Your task to perform on an android device: Open Youtube and go to the subscriptions tab Image 0: 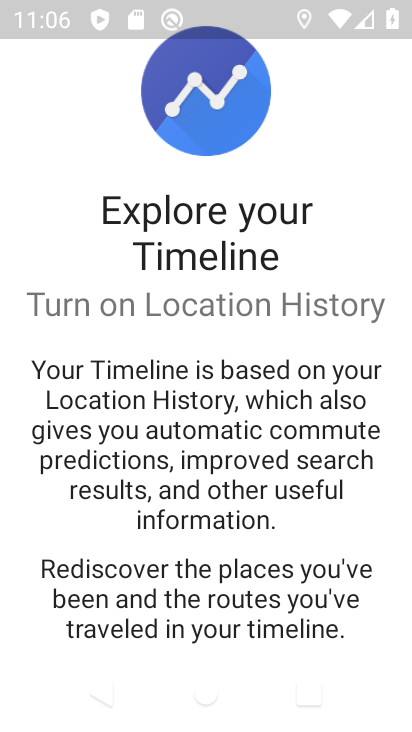
Step 0: press home button
Your task to perform on an android device: Open Youtube and go to the subscriptions tab Image 1: 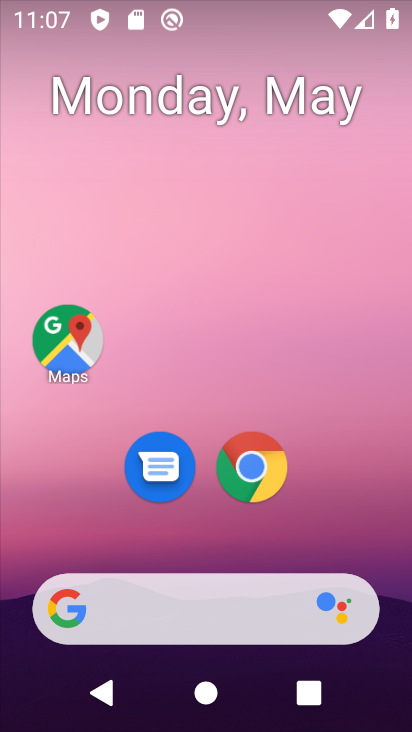
Step 1: drag from (317, 538) to (338, 163)
Your task to perform on an android device: Open Youtube and go to the subscriptions tab Image 2: 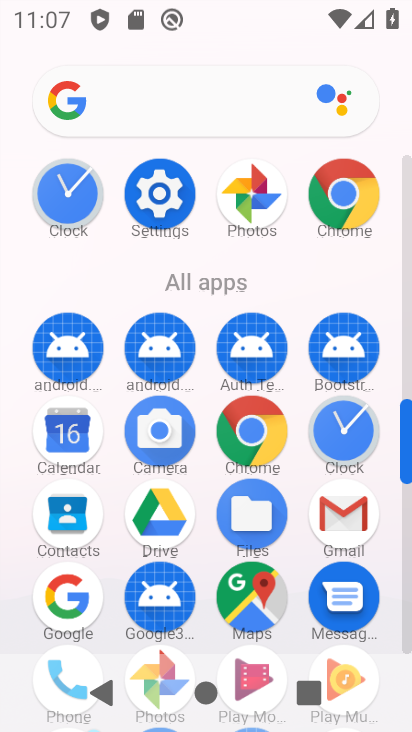
Step 2: click (408, 542)
Your task to perform on an android device: Open Youtube and go to the subscriptions tab Image 3: 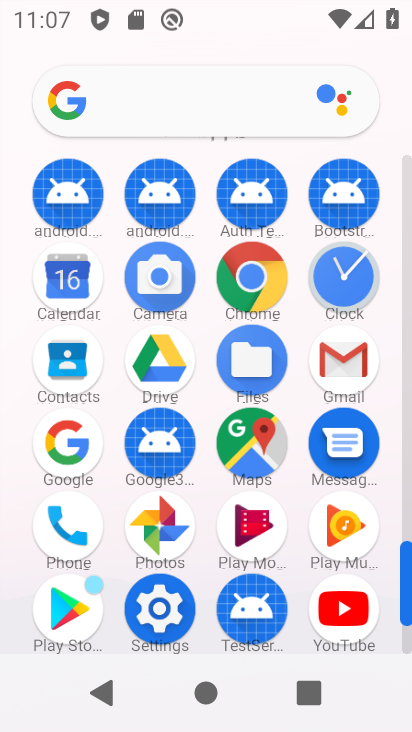
Step 3: click (339, 601)
Your task to perform on an android device: Open Youtube and go to the subscriptions tab Image 4: 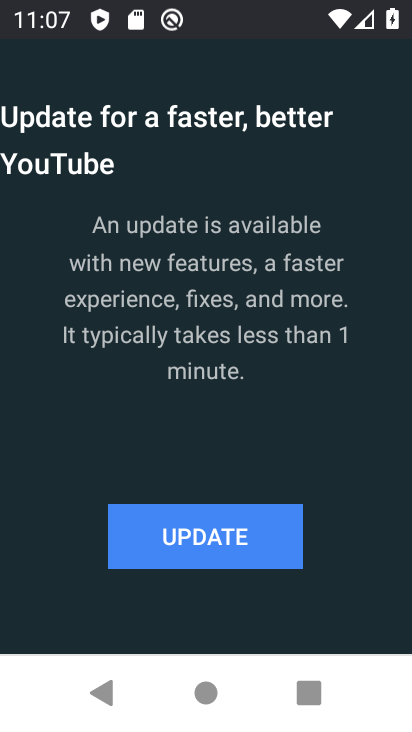
Step 4: click (222, 564)
Your task to perform on an android device: Open Youtube and go to the subscriptions tab Image 5: 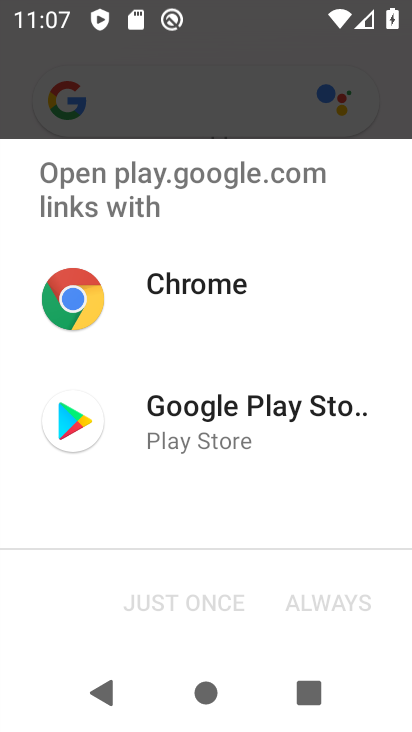
Step 5: click (204, 468)
Your task to perform on an android device: Open Youtube and go to the subscriptions tab Image 6: 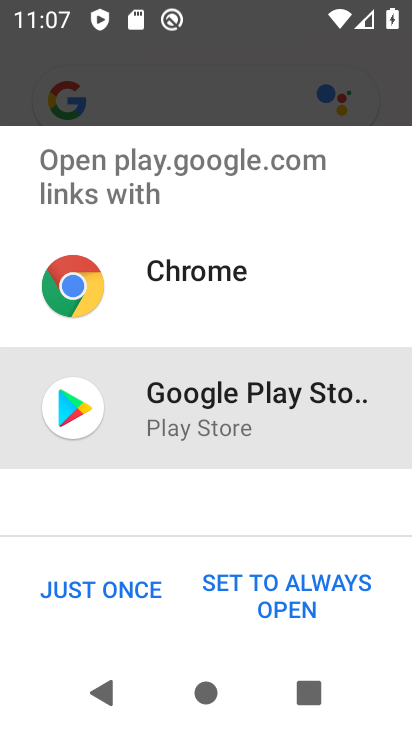
Step 6: click (171, 622)
Your task to perform on an android device: Open Youtube and go to the subscriptions tab Image 7: 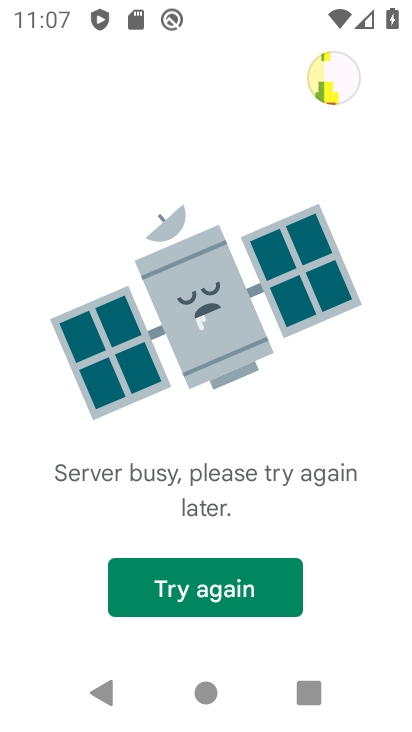
Step 7: click (246, 585)
Your task to perform on an android device: Open Youtube and go to the subscriptions tab Image 8: 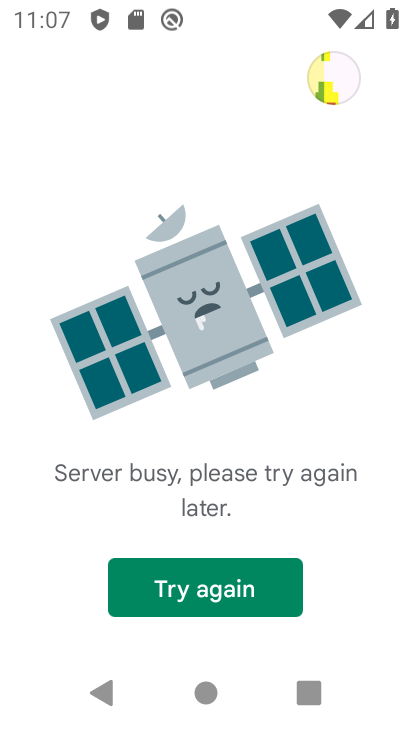
Step 8: click (246, 585)
Your task to perform on an android device: Open Youtube and go to the subscriptions tab Image 9: 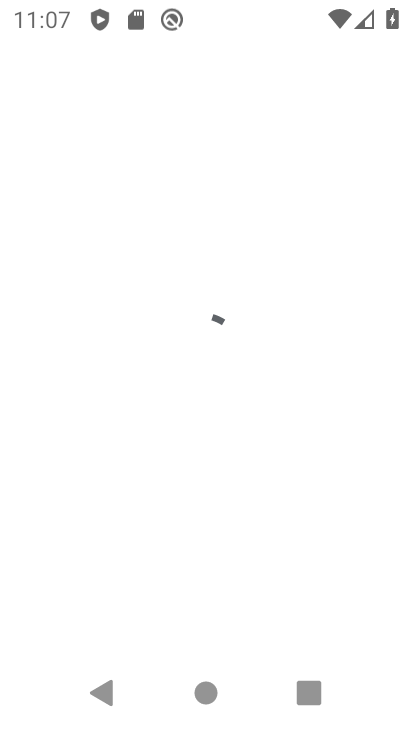
Step 9: click (246, 585)
Your task to perform on an android device: Open Youtube and go to the subscriptions tab Image 10: 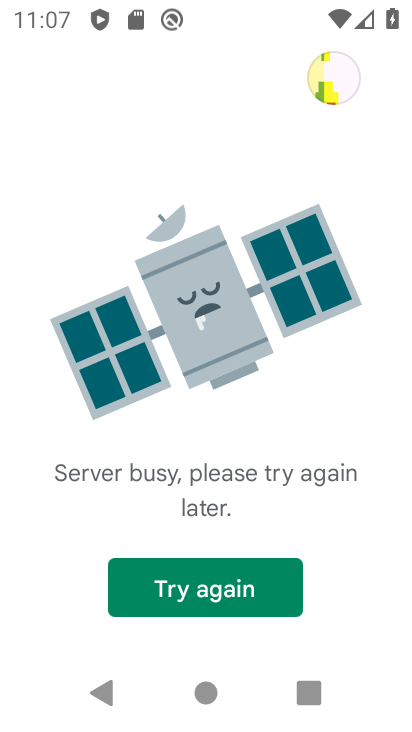
Step 10: task complete